Your task to perform on an android device: What is the news today? Image 0: 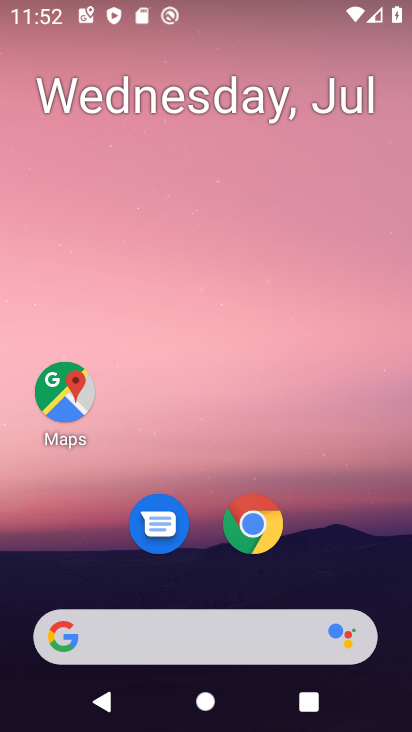
Step 0: press home button
Your task to perform on an android device: What is the news today? Image 1: 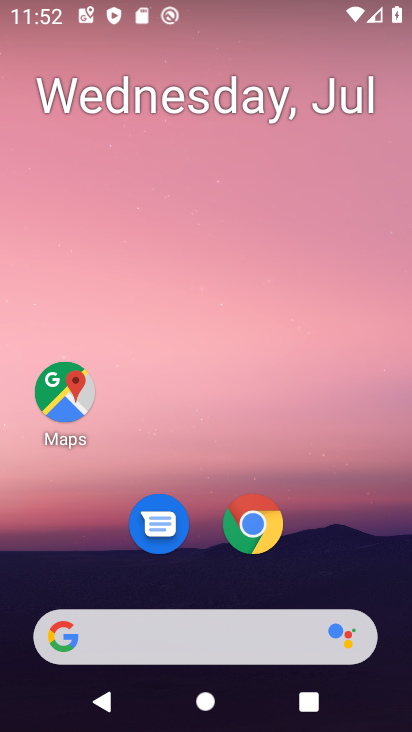
Step 1: click (149, 641)
Your task to perform on an android device: What is the news today? Image 2: 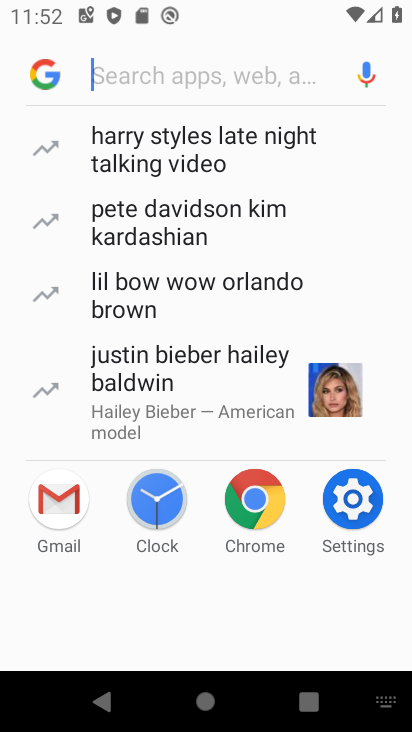
Step 2: type " news today?"
Your task to perform on an android device: What is the news today? Image 3: 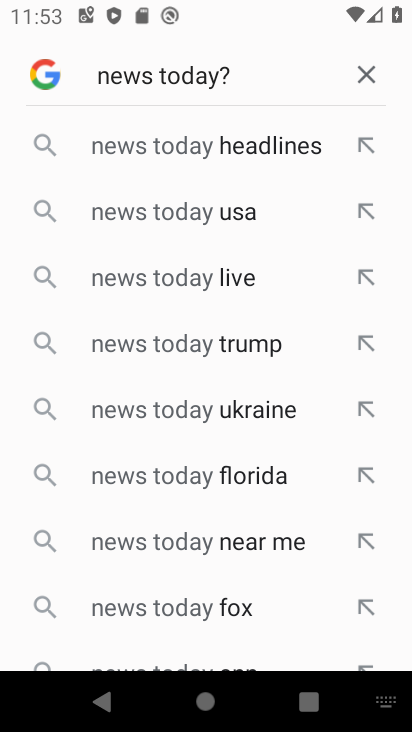
Step 3: click (118, 146)
Your task to perform on an android device: What is the news today? Image 4: 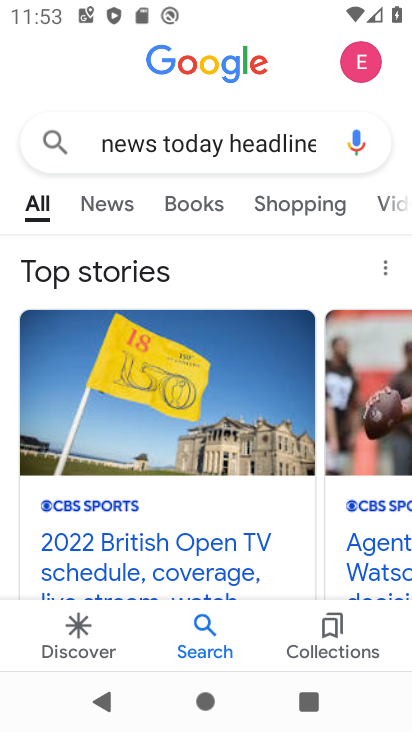
Step 4: click (128, 204)
Your task to perform on an android device: What is the news today? Image 5: 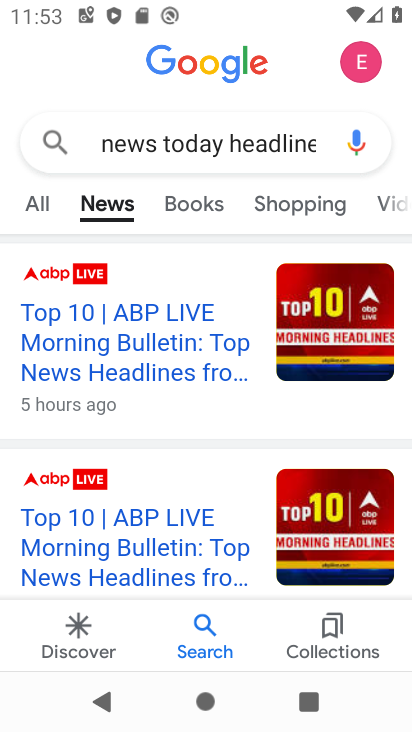
Step 5: task complete